Your task to perform on an android device: check google app version Image 0: 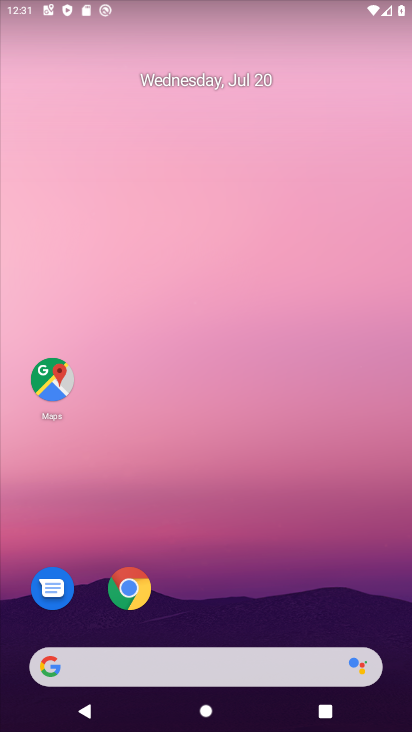
Step 0: drag from (247, 587) to (168, 18)
Your task to perform on an android device: check google app version Image 1: 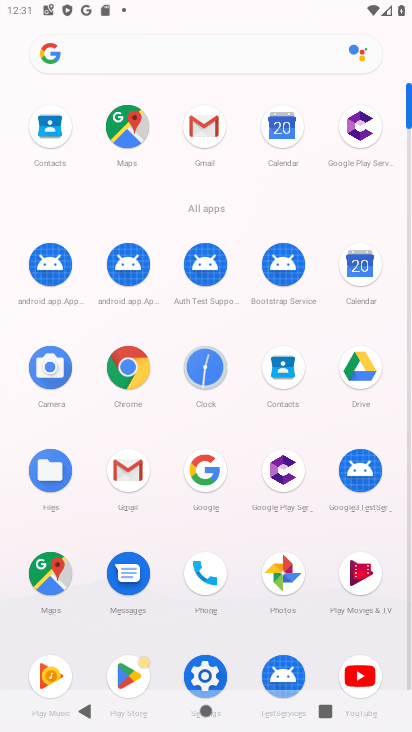
Step 1: click (197, 458)
Your task to perform on an android device: check google app version Image 2: 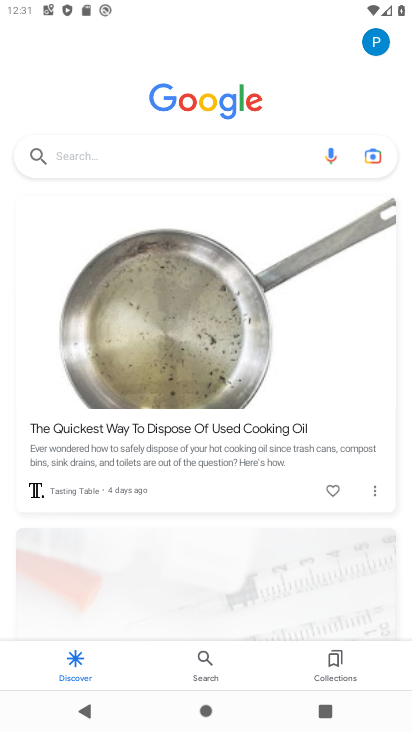
Step 2: click (373, 43)
Your task to perform on an android device: check google app version Image 3: 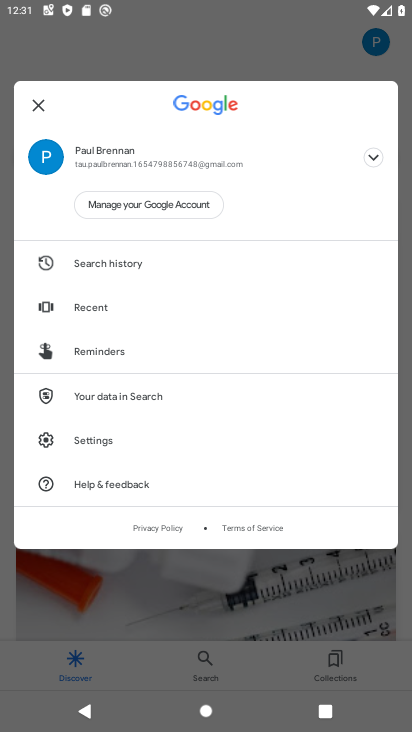
Step 3: click (100, 438)
Your task to perform on an android device: check google app version Image 4: 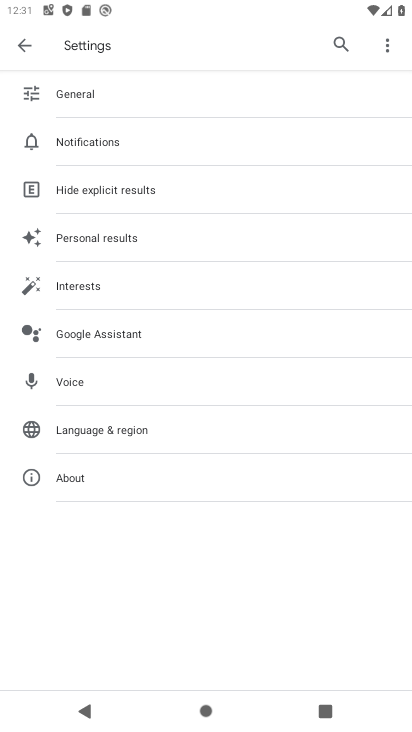
Step 4: click (67, 475)
Your task to perform on an android device: check google app version Image 5: 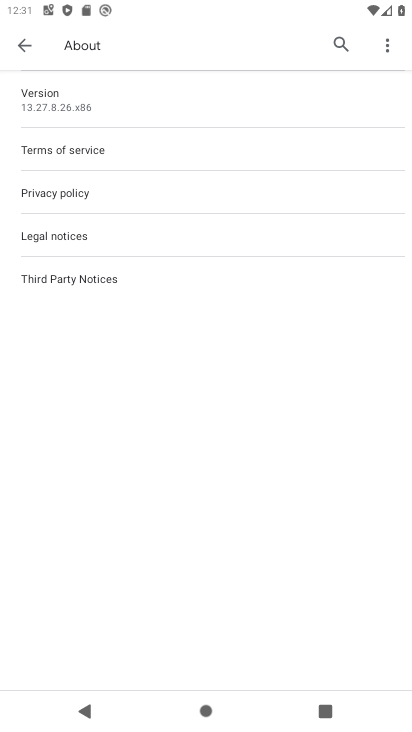
Step 5: task complete